Your task to perform on an android device: set default search engine in the chrome app Image 0: 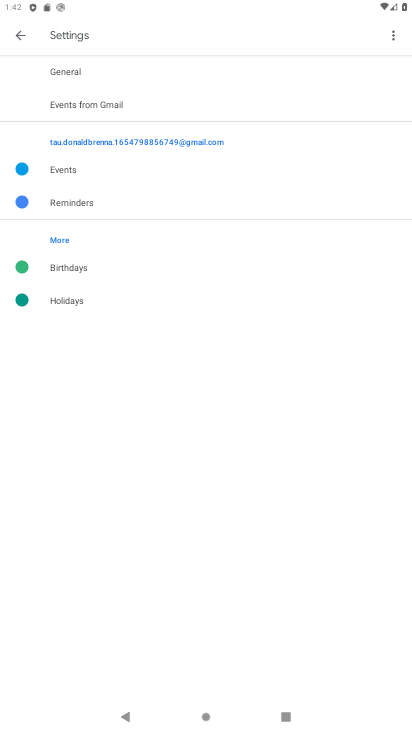
Step 0: press home button
Your task to perform on an android device: set default search engine in the chrome app Image 1: 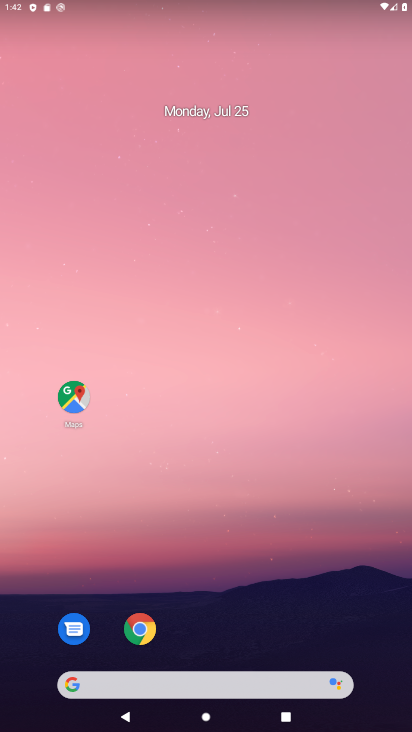
Step 1: drag from (285, 492) to (170, 10)
Your task to perform on an android device: set default search engine in the chrome app Image 2: 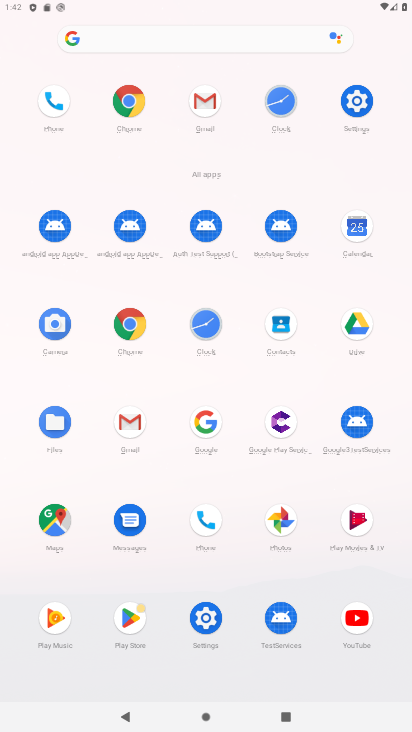
Step 2: click (122, 85)
Your task to perform on an android device: set default search engine in the chrome app Image 3: 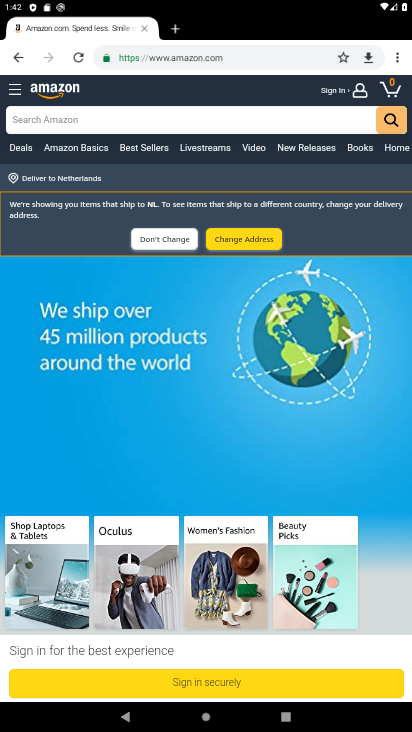
Step 3: drag from (403, 50) to (272, 383)
Your task to perform on an android device: set default search engine in the chrome app Image 4: 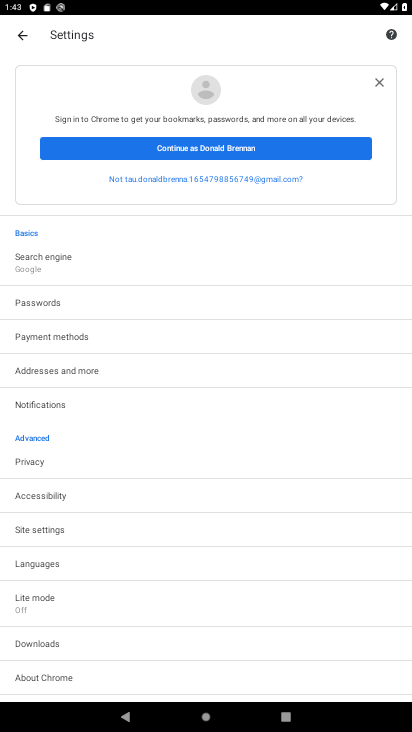
Step 4: click (84, 266)
Your task to perform on an android device: set default search engine in the chrome app Image 5: 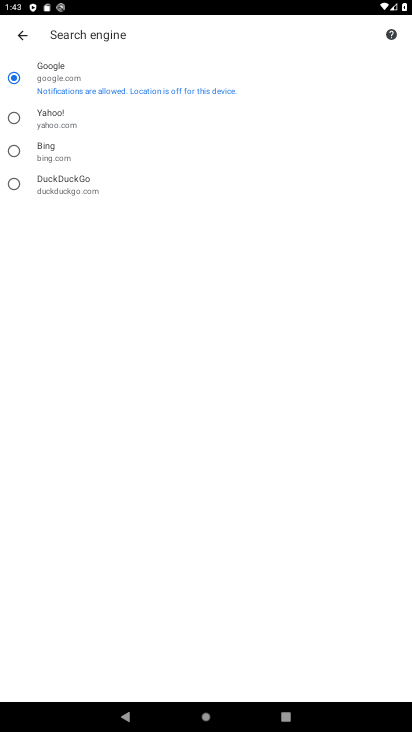
Step 5: task complete